Your task to perform on an android device: Check the news Image 0: 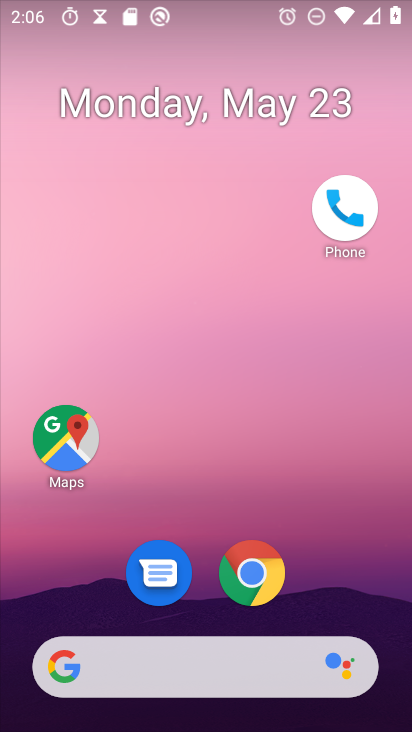
Step 0: press home button
Your task to perform on an android device: Check the news Image 1: 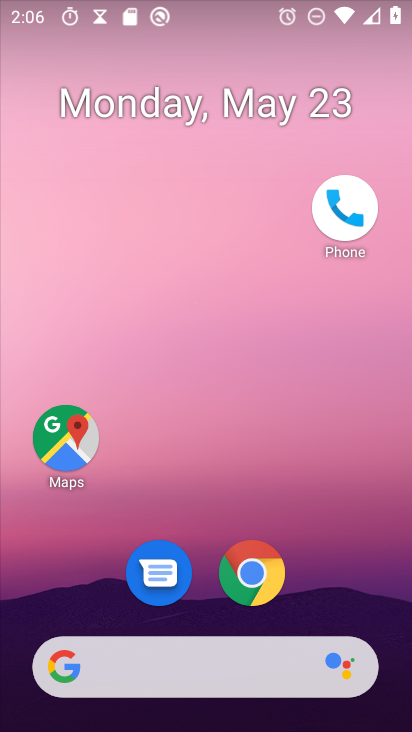
Step 1: click (71, 671)
Your task to perform on an android device: Check the news Image 2: 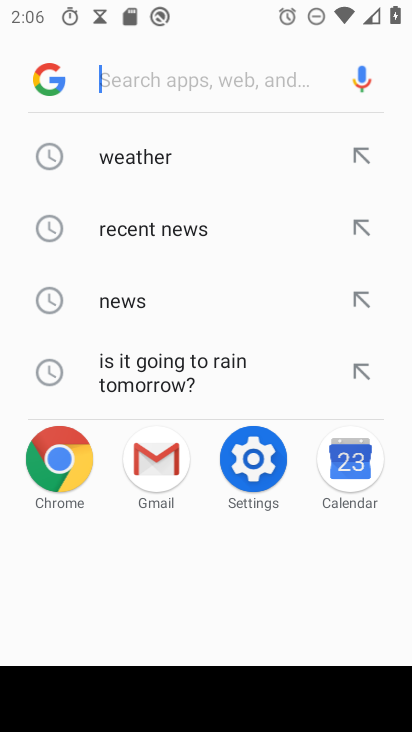
Step 2: click (130, 301)
Your task to perform on an android device: Check the news Image 3: 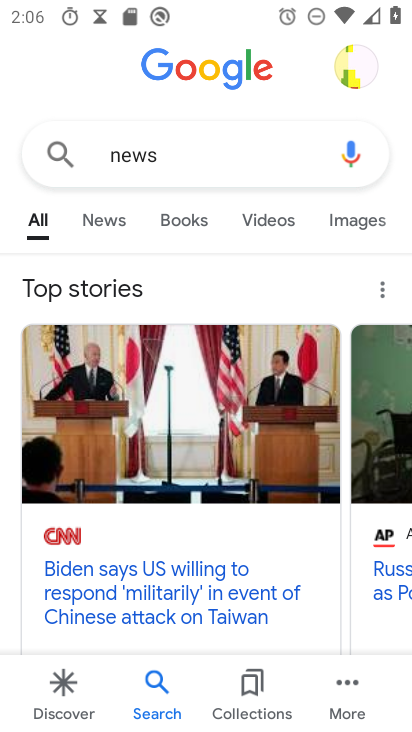
Step 3: click (108, 218)
Your task to perform on an android device: Check the news Image 4: 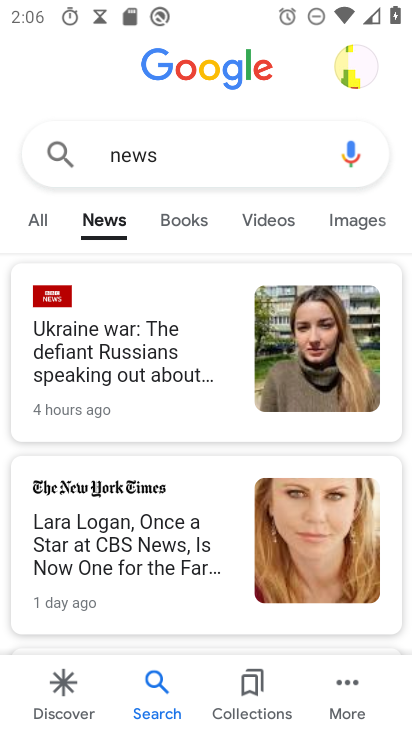
Step 4: task complete